Your task to perform on an android device: turn off smart reply in the gmail app Image 0: 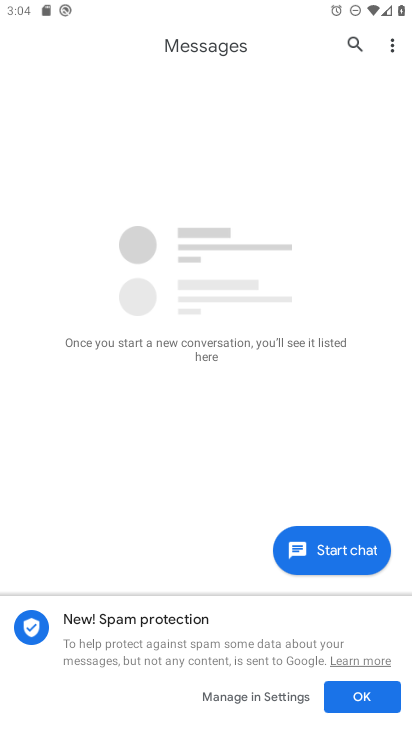
Step 0: press home button
Your task to perform on an android device: turn off smart reply in the gmail app Image 1: 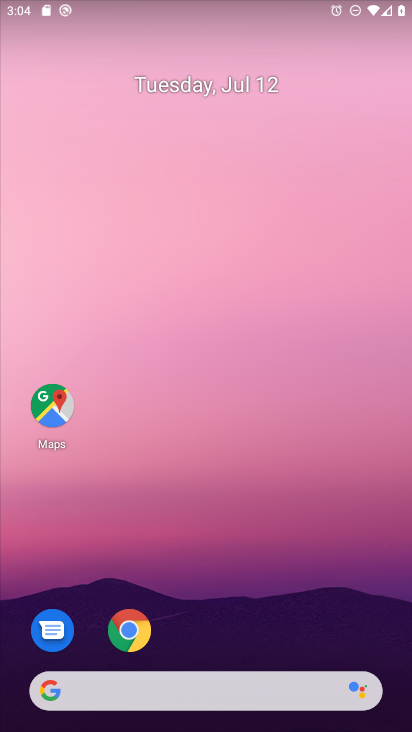
Step 1: drag from (215, 632) to (238, 170)
Your task to perform on an android device: turn off smart reply in the gmail app Image 2: 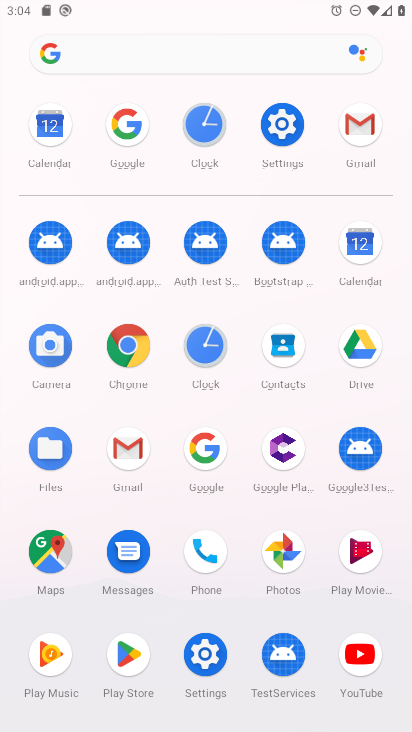
Step 2: click (373, 146)
Your task to perform on an android device: turn off smart reply in the gmail app Image 3: 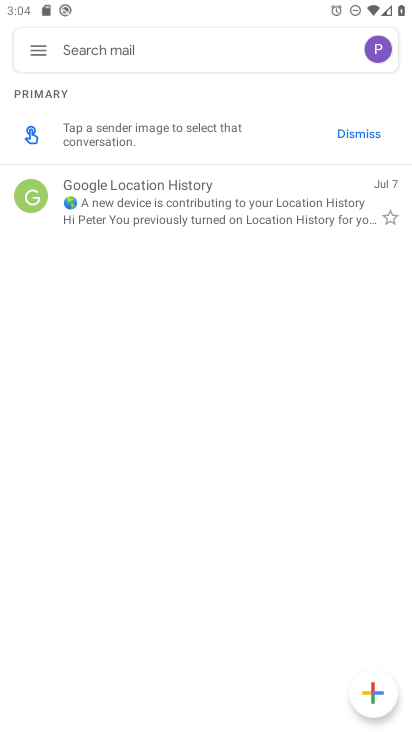
Step 3: click (43, 61)
Your task to perform on an android device: turn off smart reply in the gmail app Image 4: 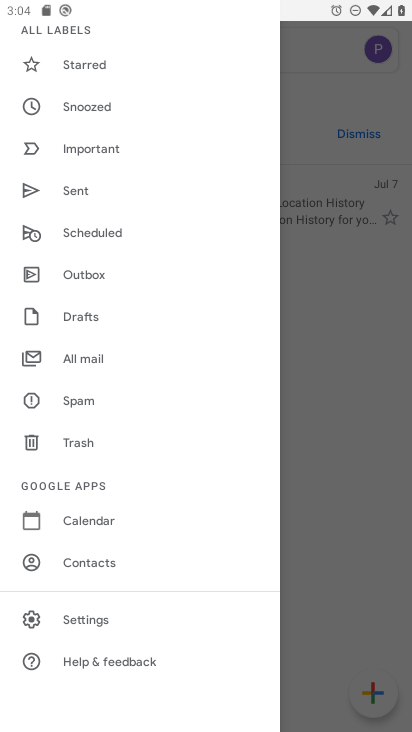
Step 4: click (102, 626)
Your task to perform on an android device: turn off smart reply in the gmail app Image 5: 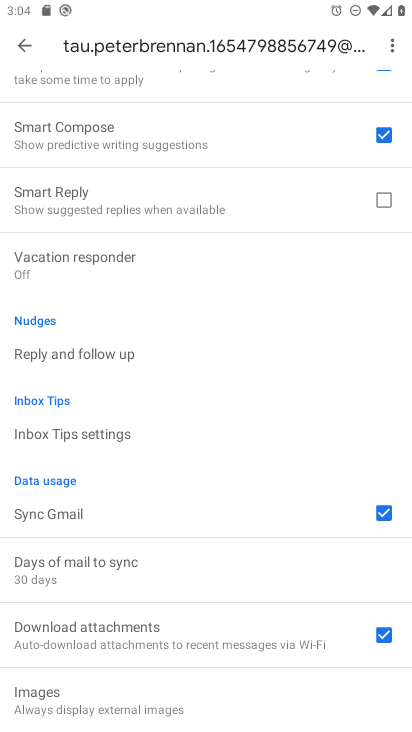
Step 5: task complete